Your task to perform on an android device: turn notification dots on Image 0: 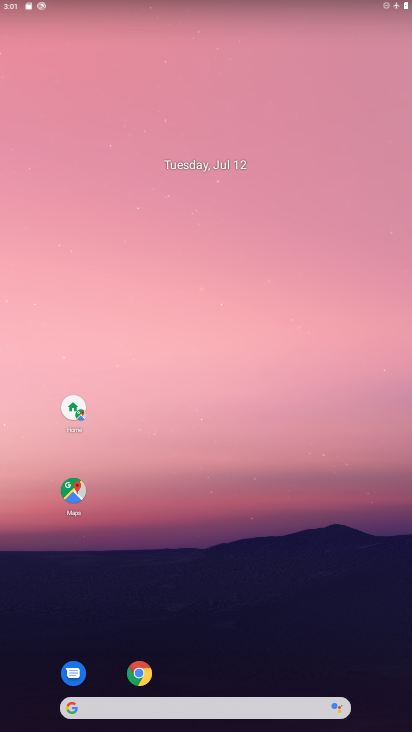
Step 0: drag from (198, 576) to (223, 309)
Your task to perform on an android device: turn notification dots on Image 1: 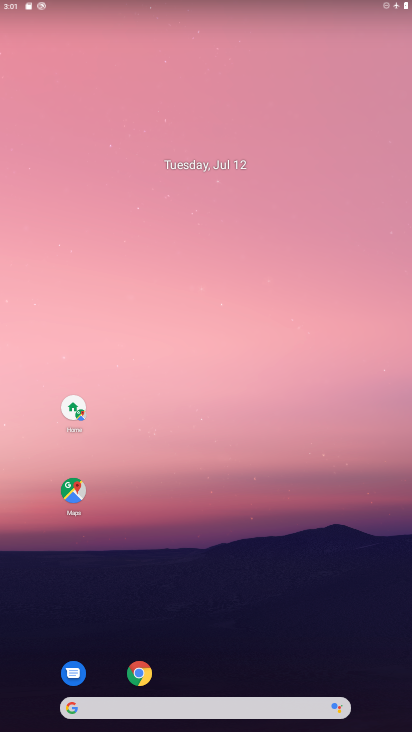
Step 1: drag from (234, 615) to (256, 227)
Your task to perform on an android device: turn notification dots on Image 2: 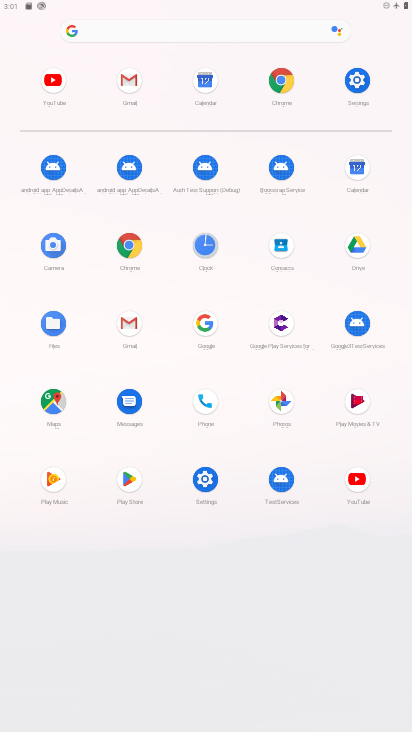
Step 2: click (358, 74)
Your task to perform on an android device: turn notification dots on Image 3: 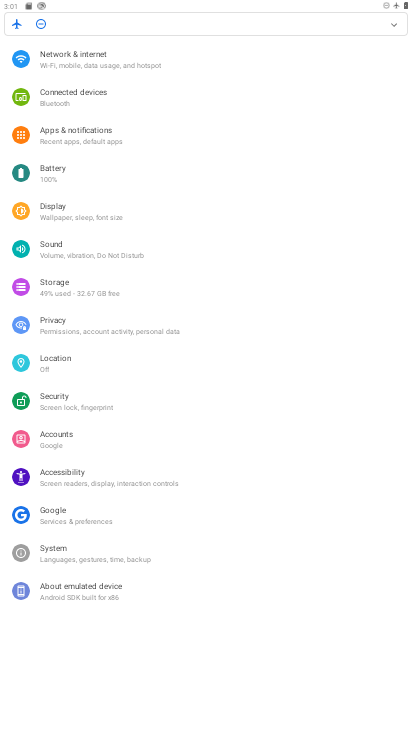
Step 3: click (176, 14)
Your task to perform on an android device: turn notification dots on Image 4: 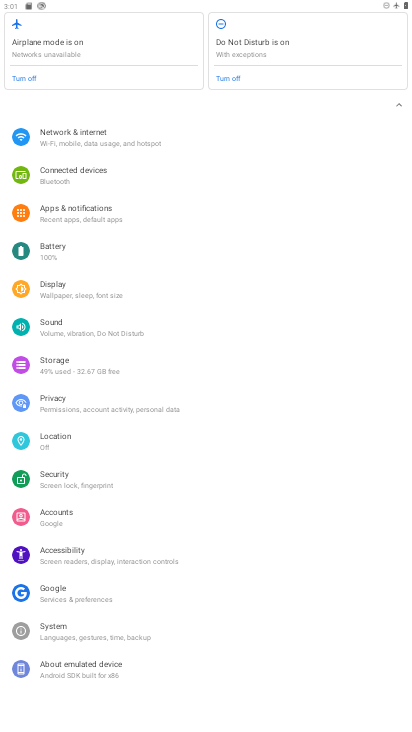
Step 4: type "notification dots "
Your task to perform on an android device: turn notification dots on Image 5: 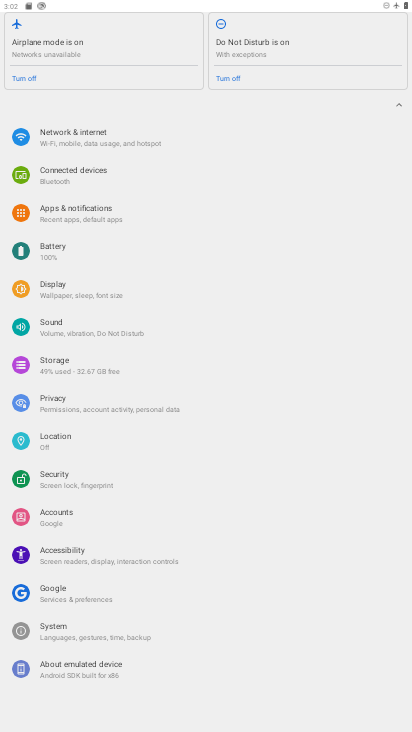
Step 5: drag from (140, 90) to (138, 350)
Your task to perform on an android device: turn notification dots on Image 6: 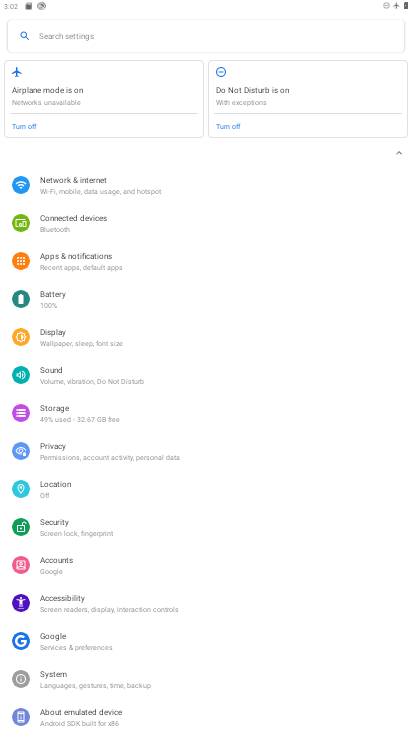
Step 6: click (149, 22)
Your task to perform on an android device: turn notification dots on Image 7: 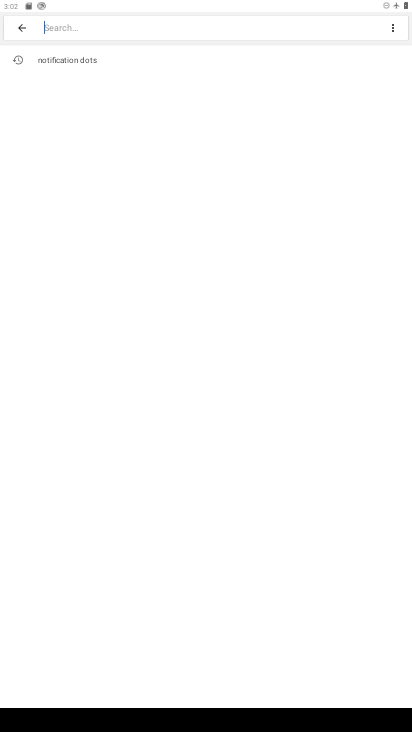
Step 7: click (122, 15)
Your task to perform on an android device: turn notification dots on Image 8: 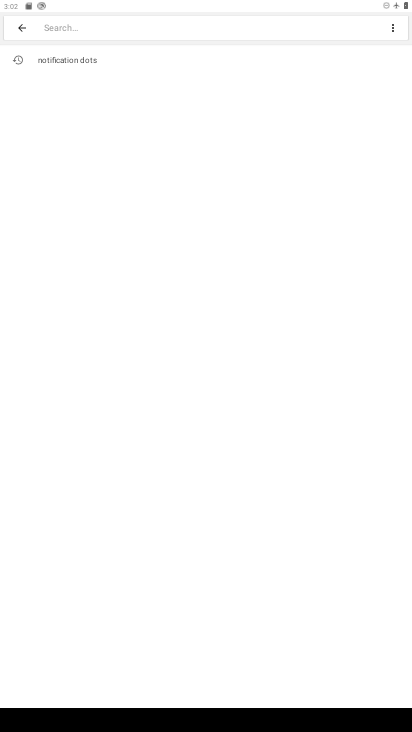
Step 8: type "notification dots "
Your task to perform on an android device: turn notification dots on Image 9: 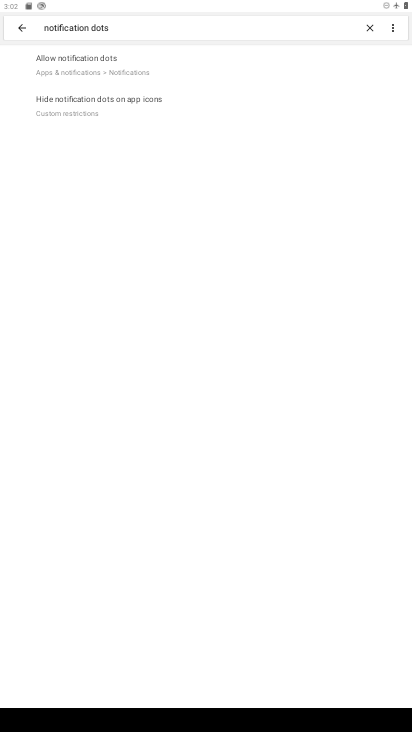
Step 9: click (86, 54)
Your task to perform on an android device: turn notification dots on Image 10: 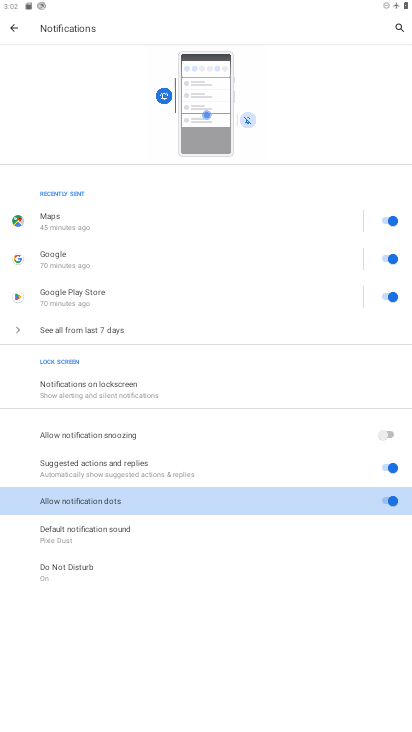
Step 10: task complete